Your task to perform on an android device: Open Google Chrome Image 0: 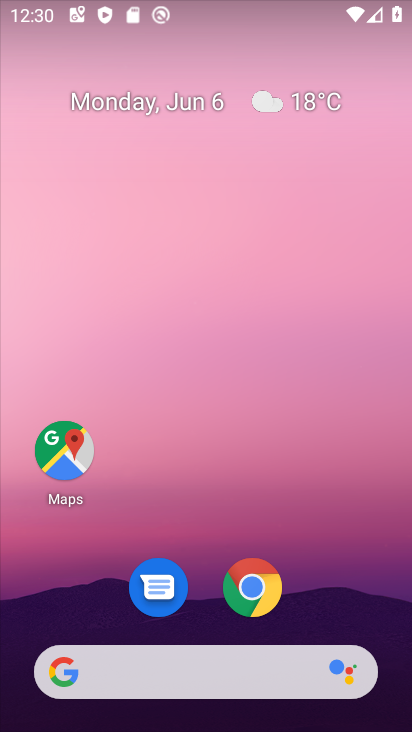
Step 0: drag from (373, 588) to (326, 184)
Your task to perform on an android device: Open Google Chrome Image 1: 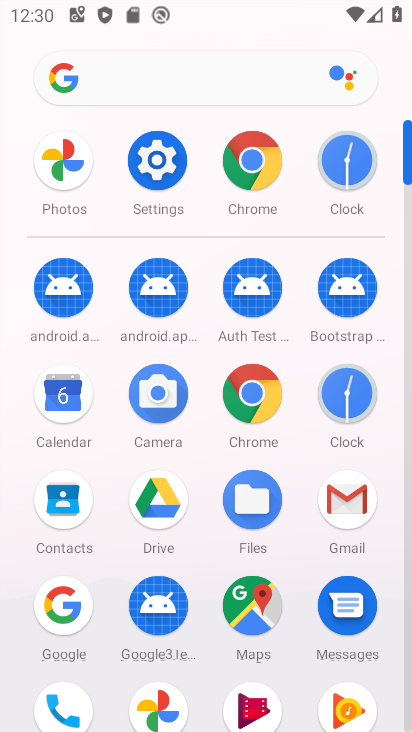
Step 1: click (255, 420)
Your task to perform on an android device: Open Google Chrome Image 2: 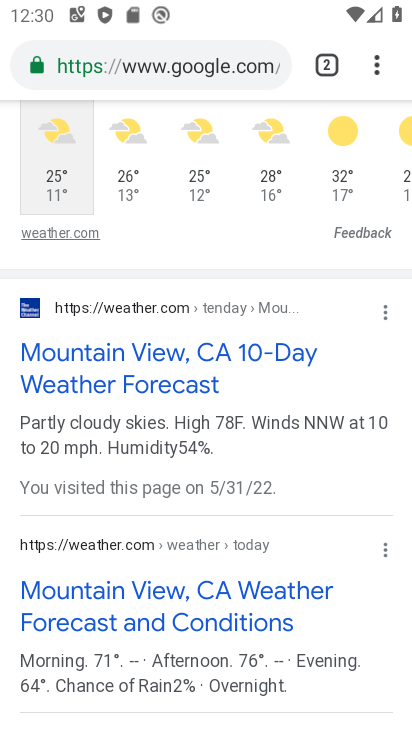
Step 2: task complete